Your task to perform on an android device: Go to display settings Image 0: 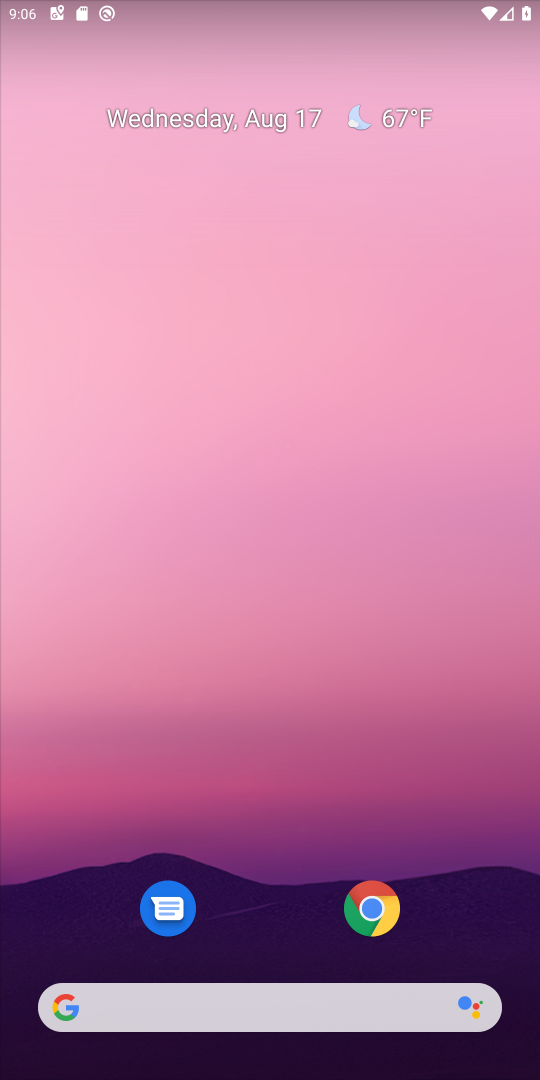
Step 0: drag from (242, 910) to (280, 6)
Your task to perform on an android device: Go to display settings Image 1: 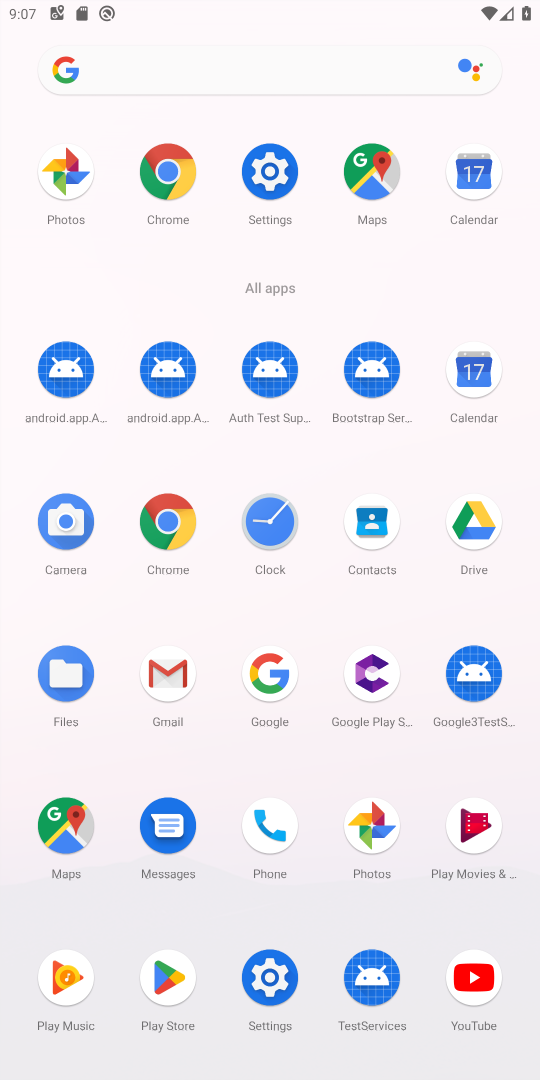
Step 1: click (266, 974)
Your task to perform on an android device: Go to display settings Image 2: 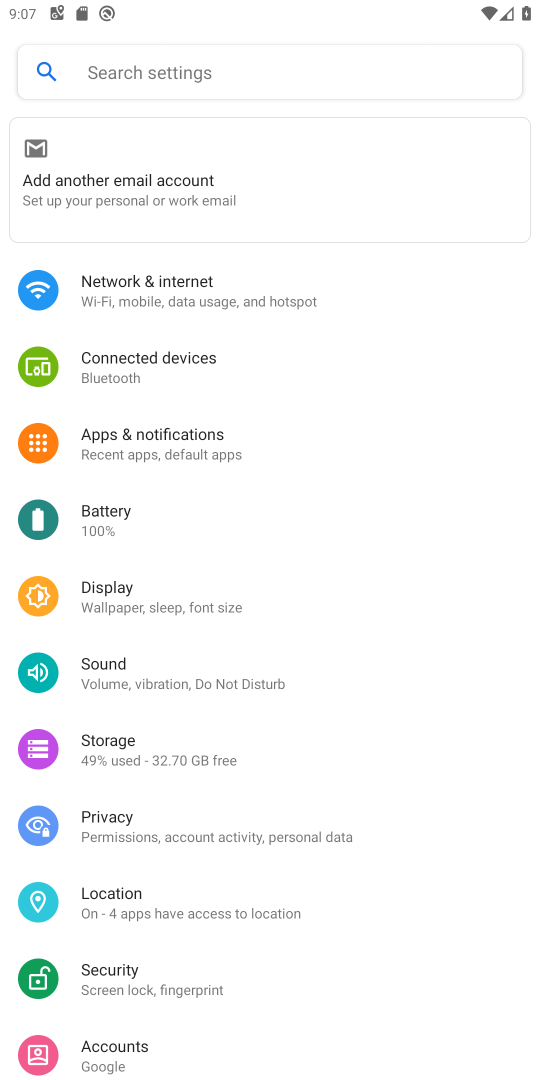
Step 2: click (92, 583)
Your task to perform on an android device: Go to display settings Image 3: 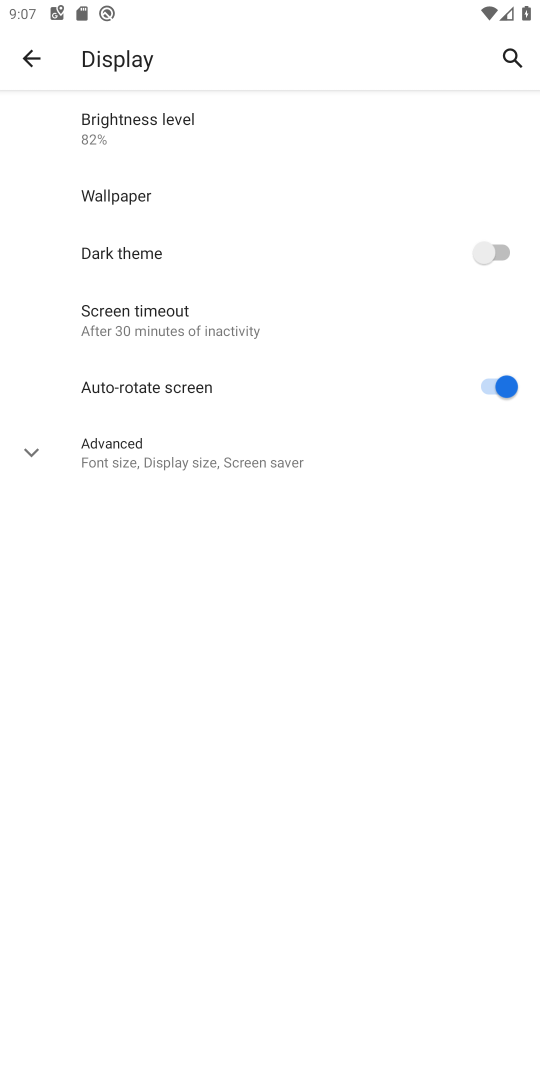
Step 3: task complete